Your task to perform on an android device: Show me popular games on the Play Store Image 0: 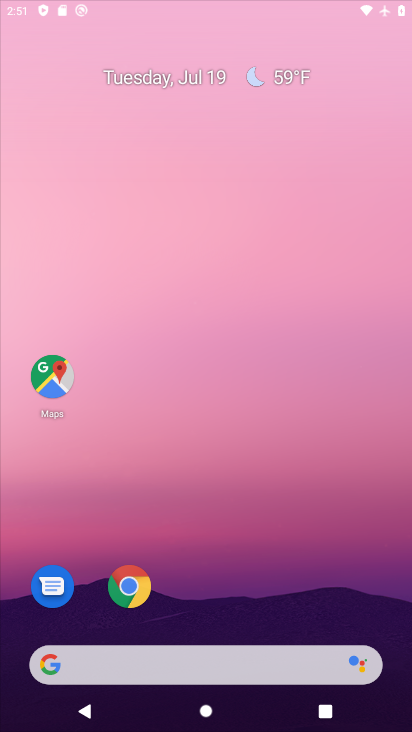
Step 0: press home button
Your task to perform on an android device: Show me popular games on the Play Store Image 1: 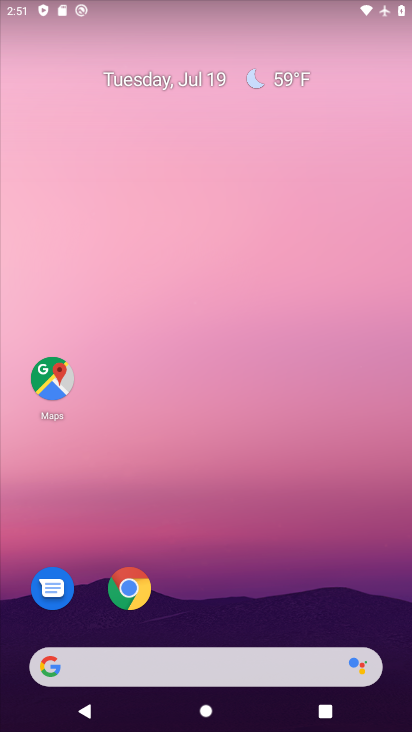
Step 1: drag from (341, 616) to (149, 0)
Your task to perform on an android device: Show me popular games on the Play Store Image 2: 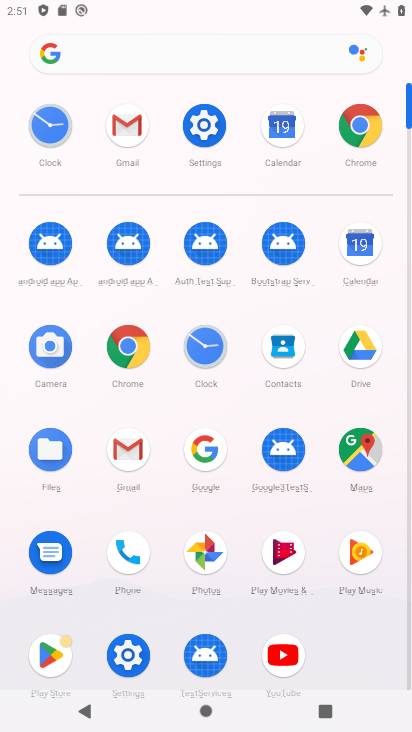
Step 2: click (76, 654)
Your task to perform on an android device: Show me popular games on the Play Store Image 3: 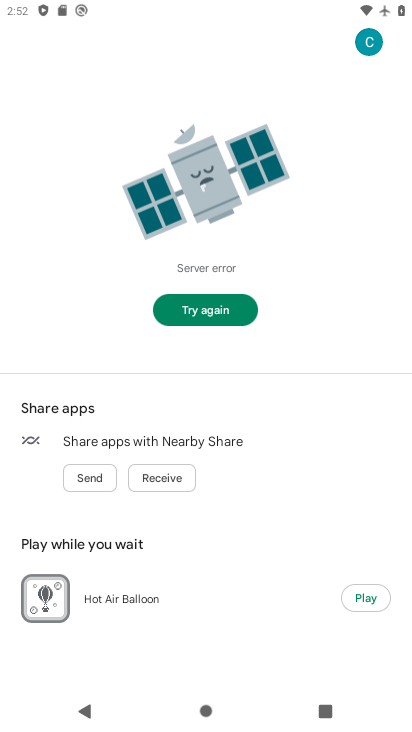
Step 3: click (230, 322)
Your task to perform on an android device: Show me popular games on the Play Store Image 4: 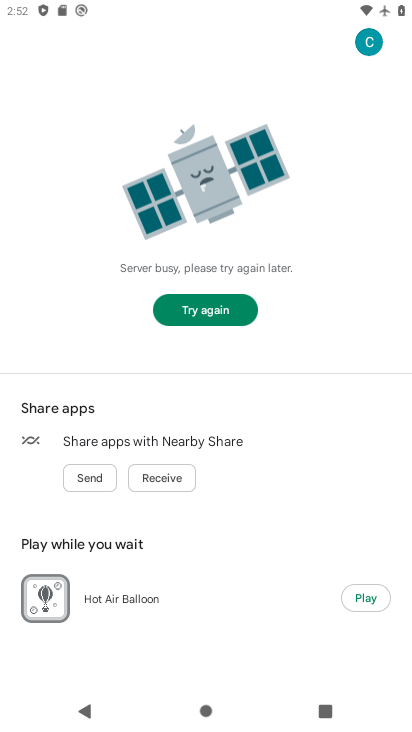
Step 4: task complete